Your task to perform on an android device: toggle sleep mode Image 0: 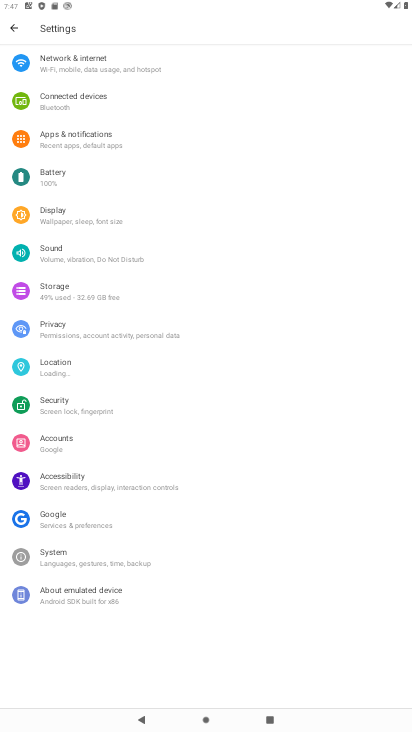
Step 0: press back button
Your task to perform on an android device: toggle sleep mode Image 1: 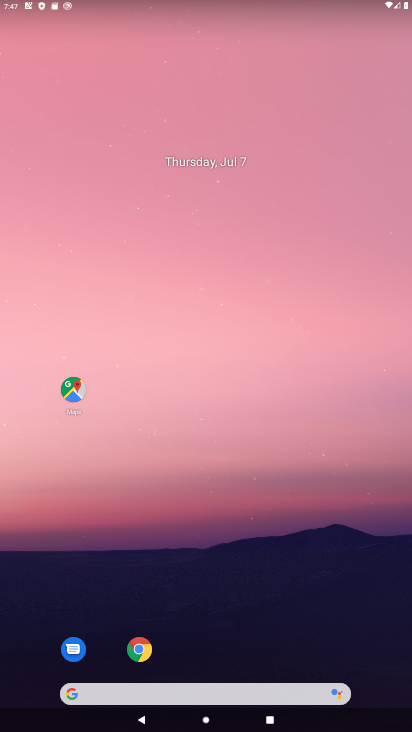
Step 1: drag from (259, 606) to (176, 204)
Your task to perform on an android device: toggle sleep mode Image 2: 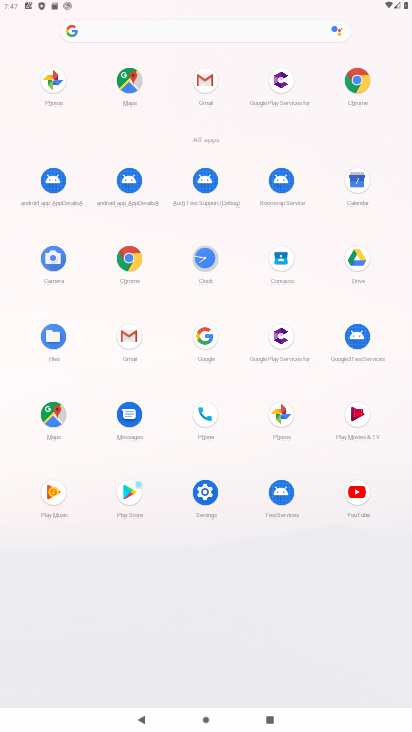
Step 2: click (201, 492)
Your task to perform on an android device: toggle sleep mode Image 3: 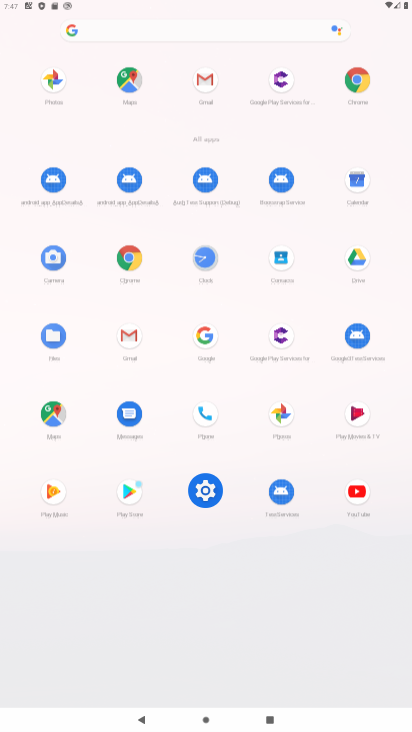
Step 3: click (215, 510)
Your task to perform on an android device: toggle sleep mode Image 4: 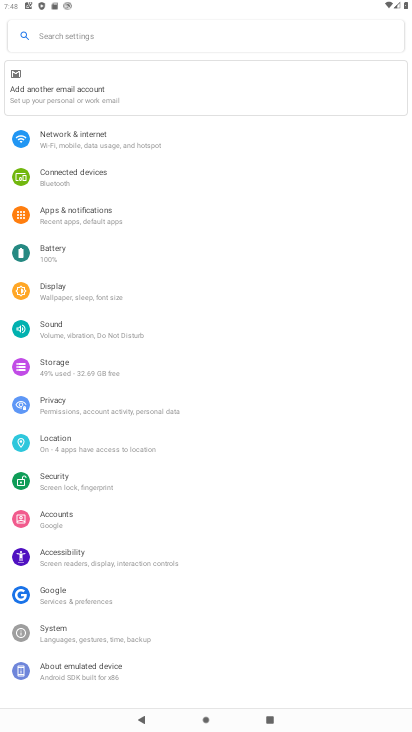
Step 4: click (60, 296)
Your task to perform on an android device: toggle sleep mode Image 5: 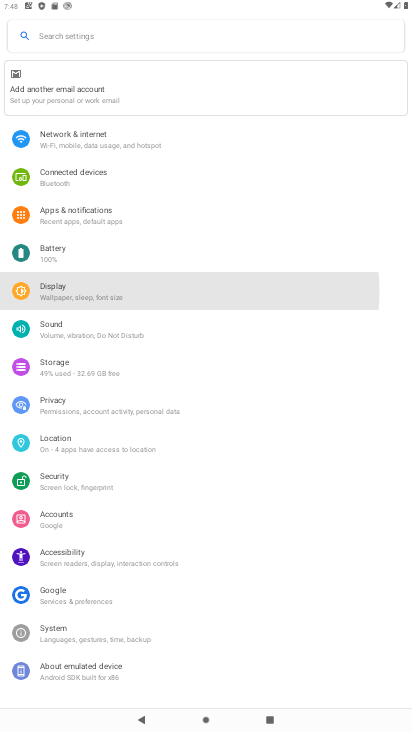
Step 5: click (58, 290)
Your task to perform on an android device: toggle sleep mode Image 6: 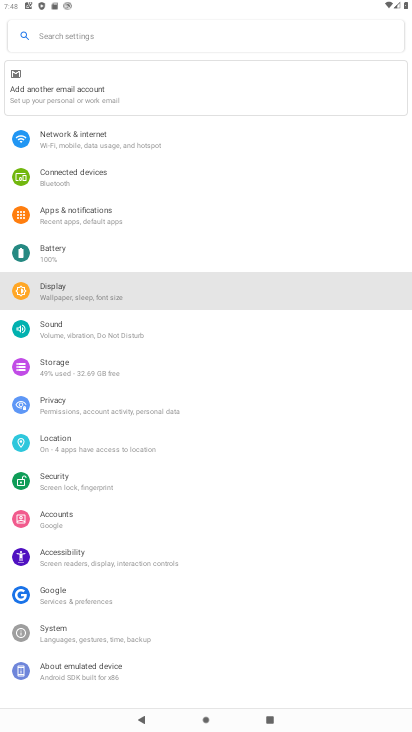
Step 6: click (58, 290)
Your task to perform on an android device: toggle sleep mode Image 7: 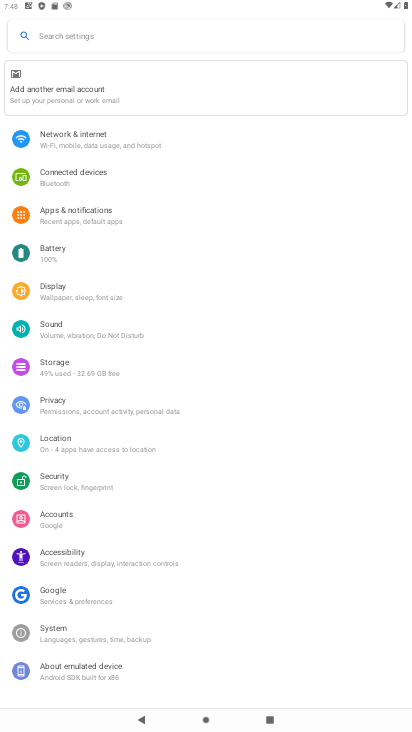
Step 7: click (58, 290)
Your task to perform on an android device: toggle sleep mode Image 8: 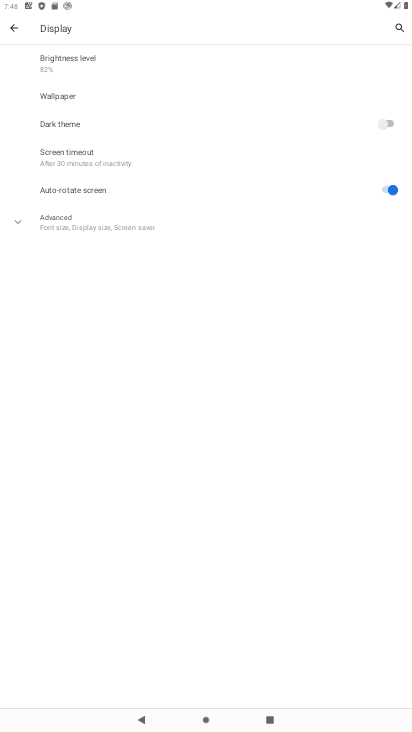
Step 8: click (58, 290)
Your task to perform on an android device: toggle sleep mode Image 9: 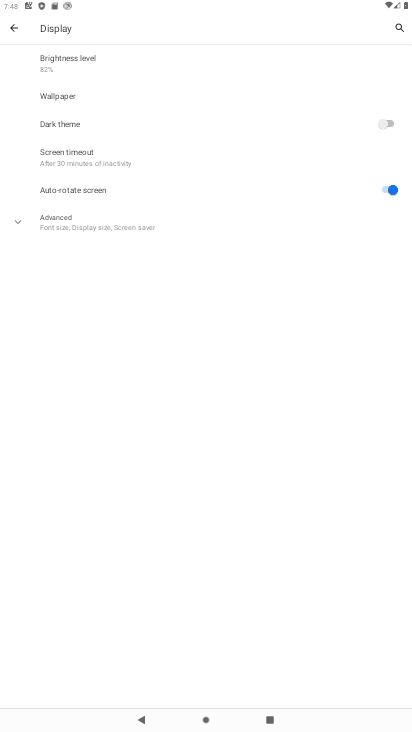
Step 9: click (59, 153)
Your task to perform on an android device: toggle sleep mode Image 10: 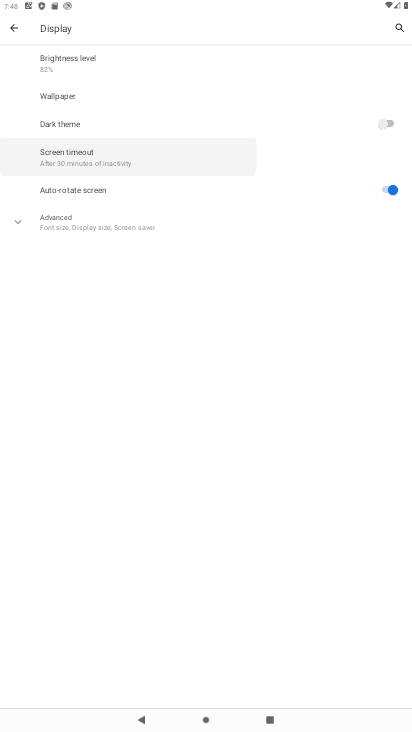
Step 10: click (63, 159)
Your task to perform on an android device: toggle sleep mode Image 11: 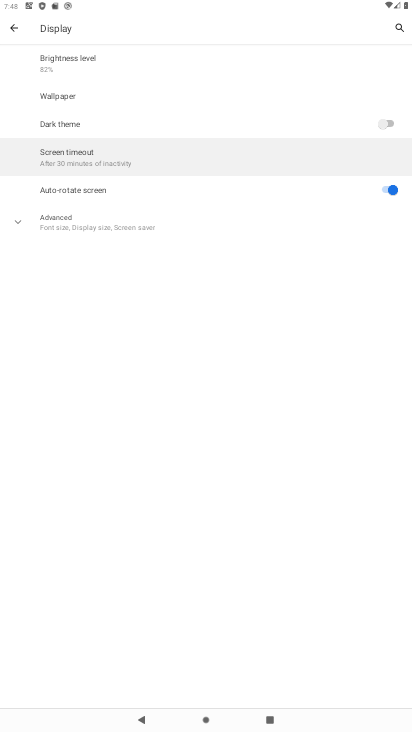
Step 11: click (63, 159)
Your task to perform on an android device: toggle sleep mode Image 12: 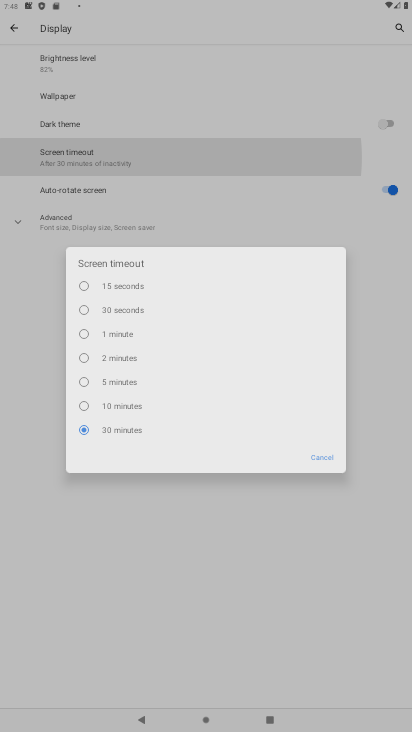
Step 12: click (63, 159)
Your task to perform on an android device: toggle sleep mode Image 13: 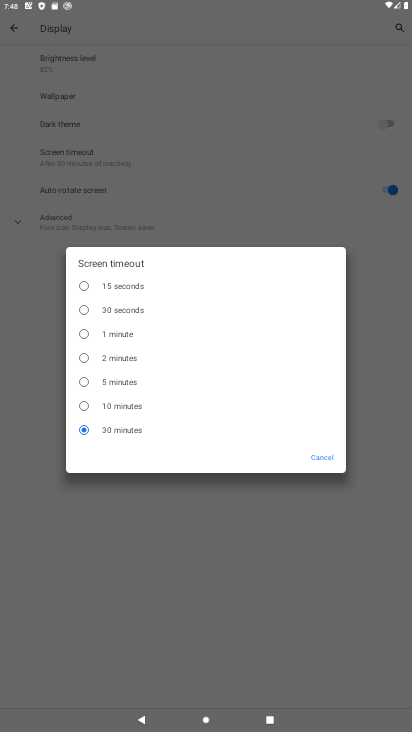
Step 13: click (82, 378)
Your task to perform on an android device: toggle sleep mode Image 14: 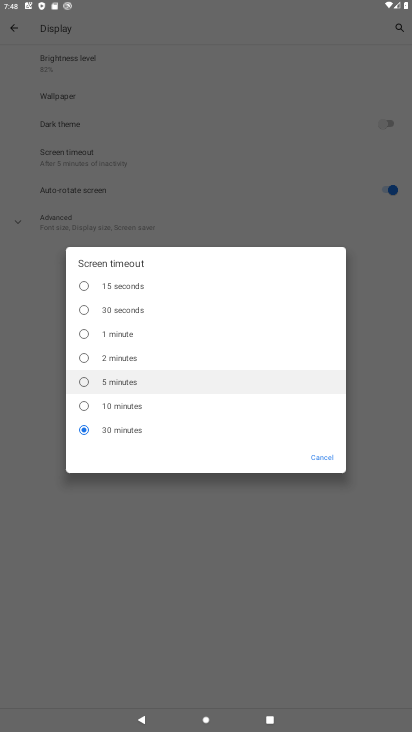
Step 14: click (84, 377)
Your task to perform on an android device: toggle sleep mode Image 15: 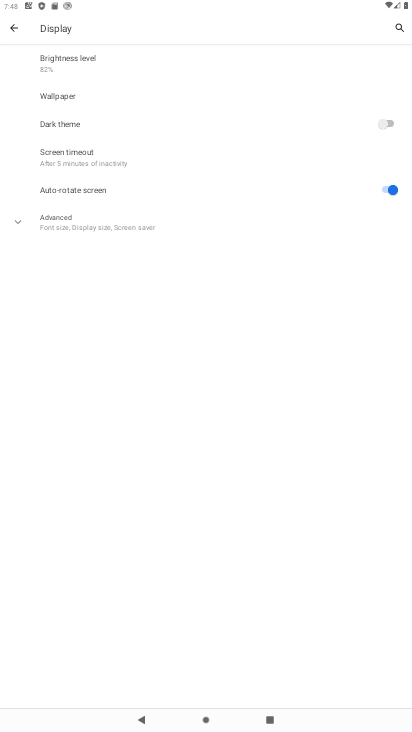
Step 15: task complete